Your task to perform on an android device: toggle show notifications on the lock screen Image 0: 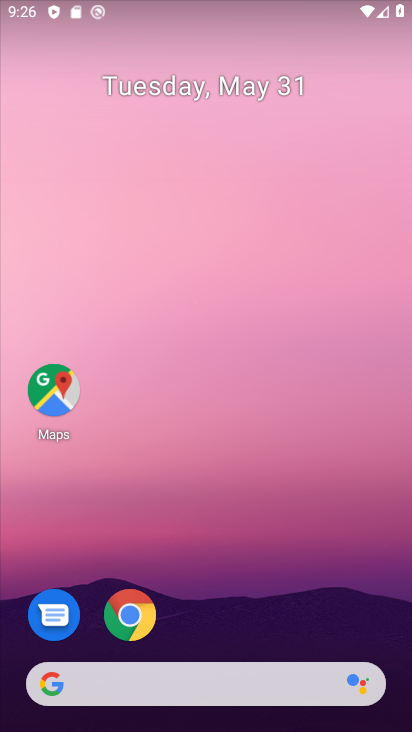
Step 0: drag from (290, 621) to (303, 233)
Your task to perform on an android device: toggle show notifications on the lock screen Image 1: 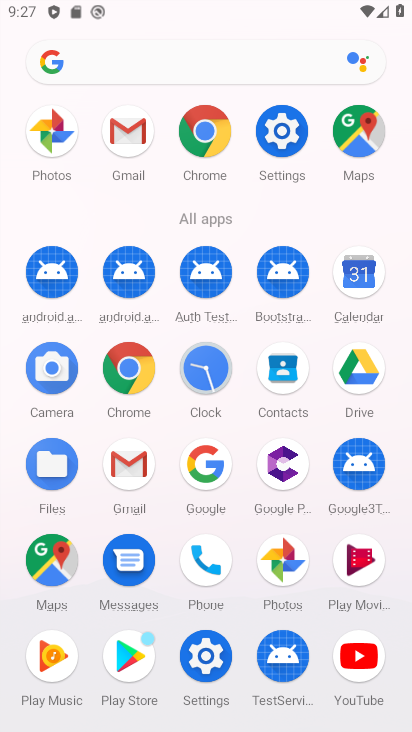
Step 1: click (279, 128)
Your task to perform on an android device: toggle show notifications on the lock screen Image 2: 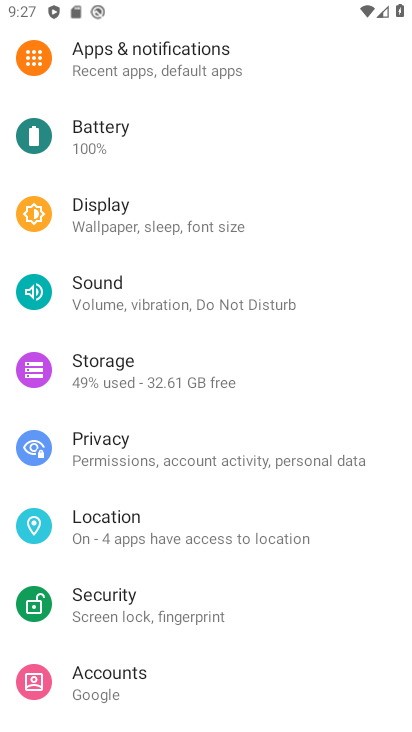
Step 2: click (156, 72)
Your task to perform on an android device: toggle show notifications on the lock screen Image 3: 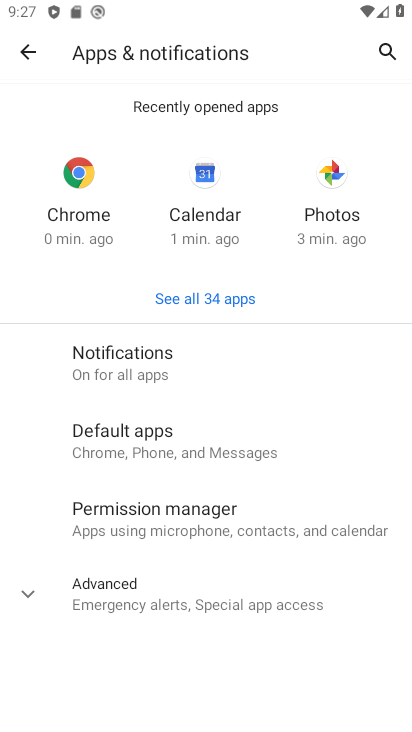
Step 3: click (157, 364)
Your task to perform on an android device: toggle show notifications on the lock screen Image 4: 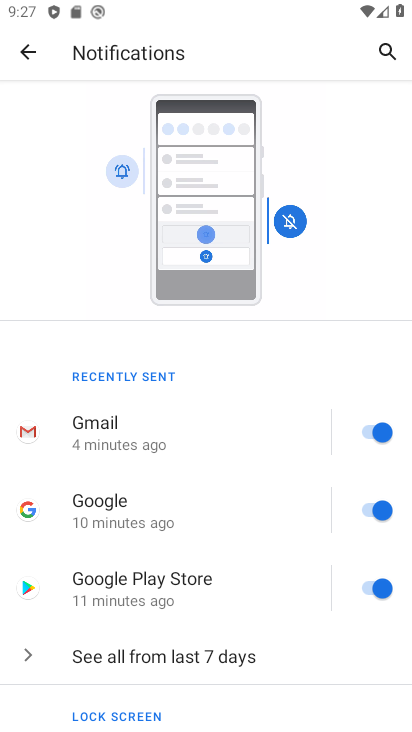
Step 4: drag from (203, 569) to (254, 225)
Your task to perform on an android device: toggle show notifications on the lock screen Image 5: 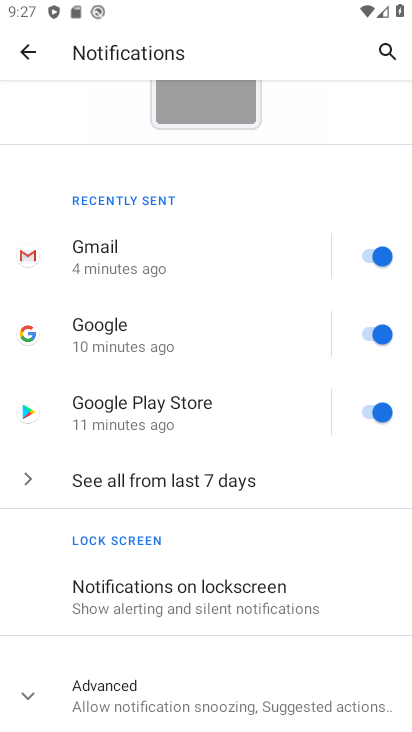
Step 5: click (150, 593)
Your task to perform on an android device: toggle show notifications on the lock screen Image 6: 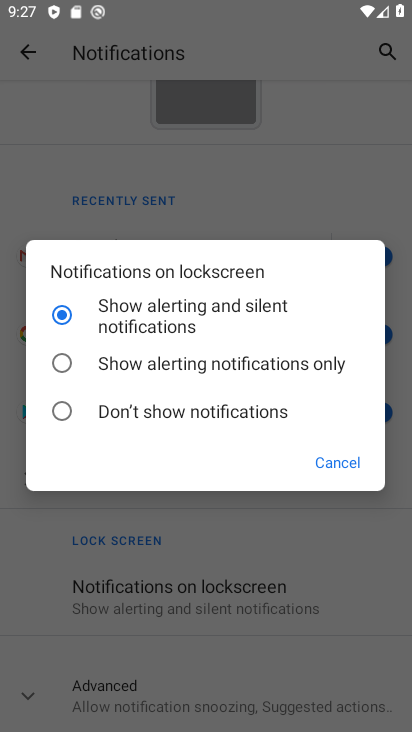
Step 6: click (112, 372)
Your task to perform on an android device: toggle show notifications on the lock screen Image 7: 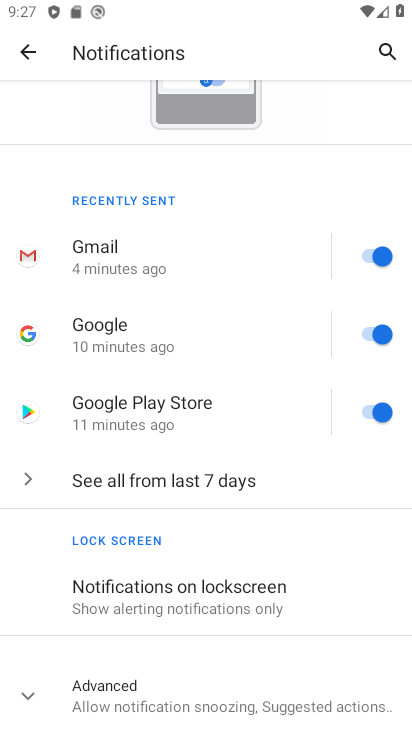
Step 7: task complete